Your task to perform on an android device: Open the map Image 0: 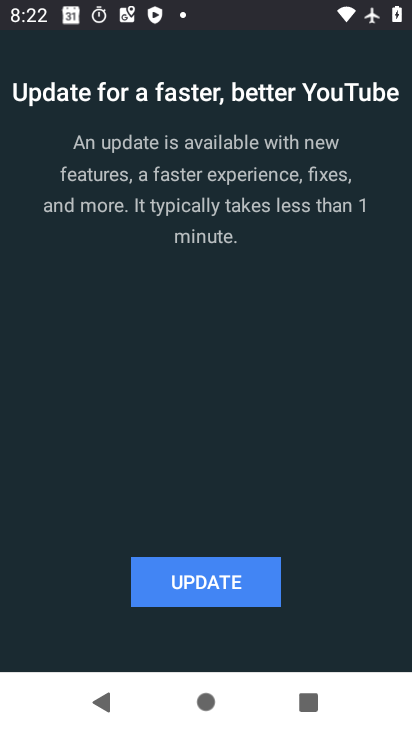
Step 0: press home button
Your task to perform on an android device: Open the map Image 1: 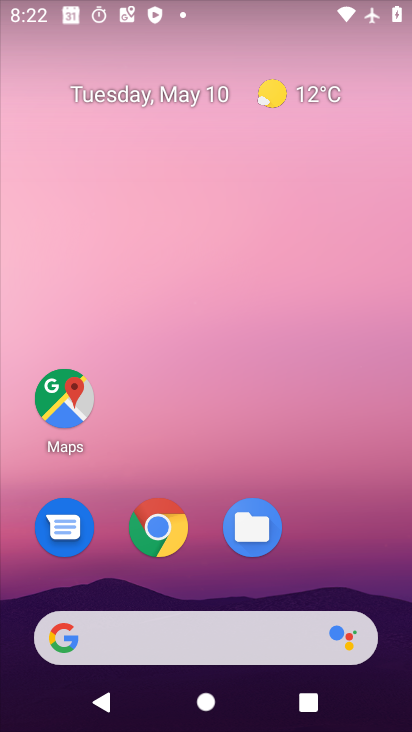
Step 1: click (72, 420)
Your task to perform on an android device: Open the map Image 2: 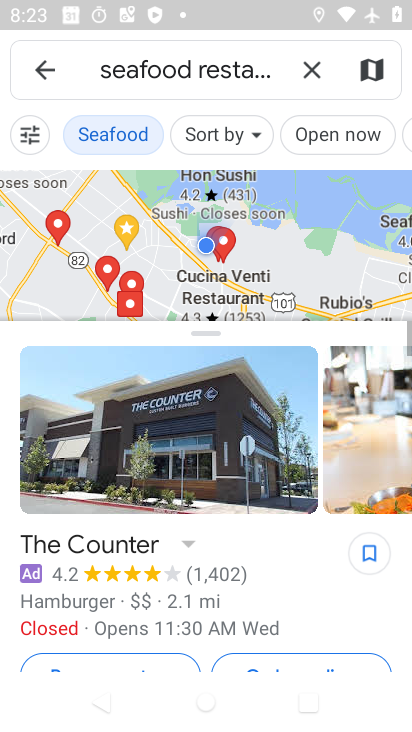
Step 2: task complete